Your task to perform on an android device: Clear all items from cart on bestbuy.com. Search for "asus zenbook" on bestbuy.com, select the first entry, add it to the cart, then select checkout. Image 0: 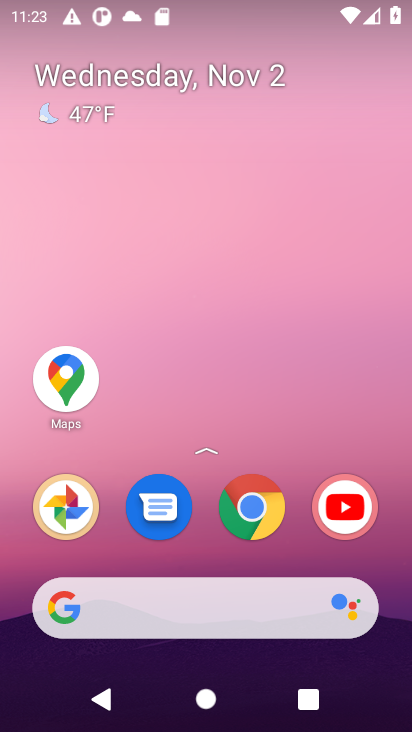
Step 0: click (251, 621)
Your task to perform on an android device: Clear all items from cart on bestbuy.com. Search for "asus zenbook" on bestbuy.com, select the first entry, add it to the cart, then select checkout. Image 1: 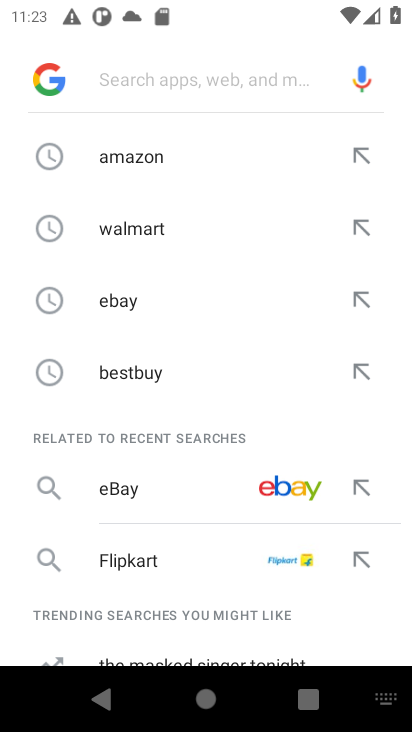
Step 1: click (172, 364)
Your task to perform on an android device: Clear all items from cart on bestbuy.com. Search for "asus zenbook" on bestbuy.com, select the first entry, add it to the cart, then select checkout. Image 2: 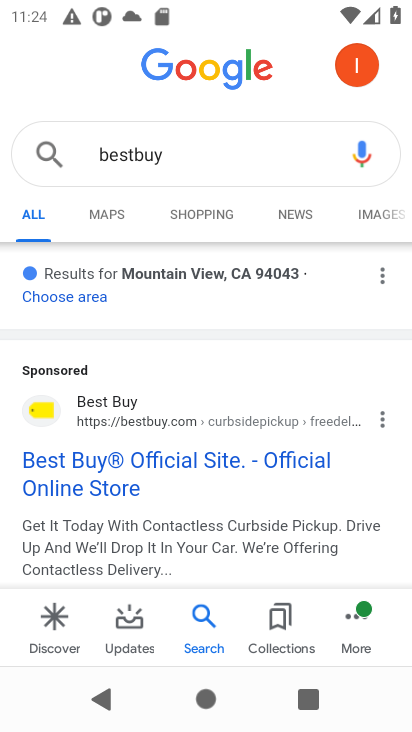
Step 2: click (117, 448)
Your task to perform on an android device: Clear all items from cart on bestbuy.com. Search for "asus zenbook" on bestbuy.com, select the first entry, add it to the cart, then select checkout. Image 3: 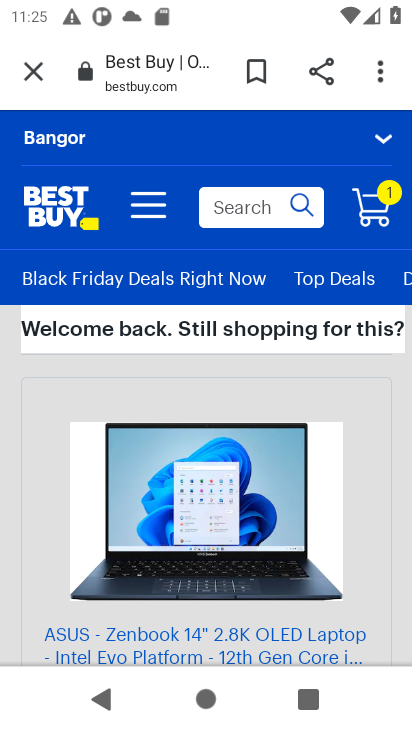
Step 3: task complete